Your task to perform on an android device: toggle priority inbox in the gmail app Image 0: 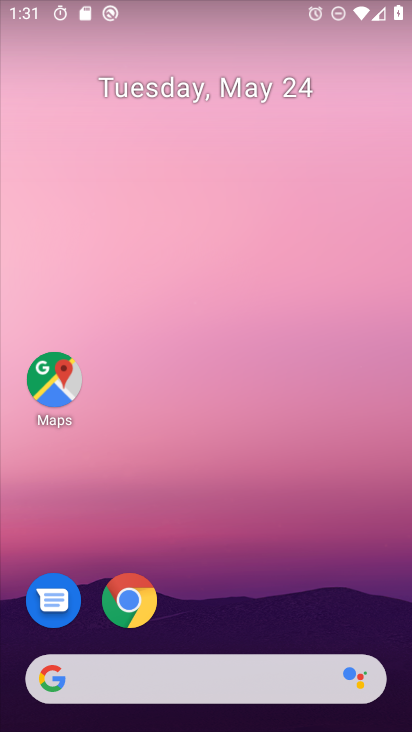
Step 0: drag from (254, 535) to (243, 178)
Your task to perform on an android device: toggle priority inbox in the gmail app Image 1: 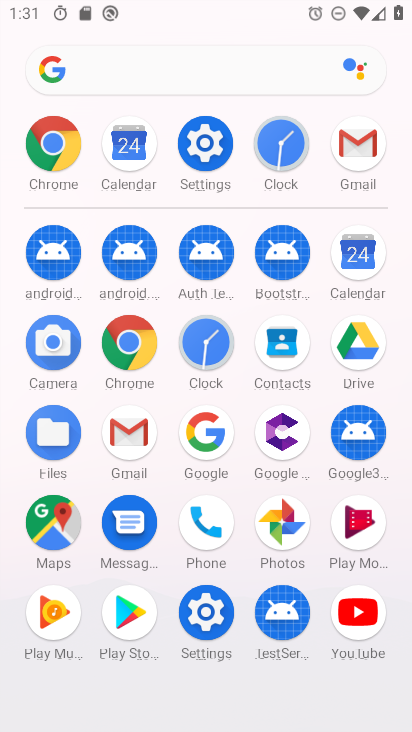
Step 1: click (135, 436)
Your task to perform on an android device: toggle priority inbox in the gmail app Image 2: 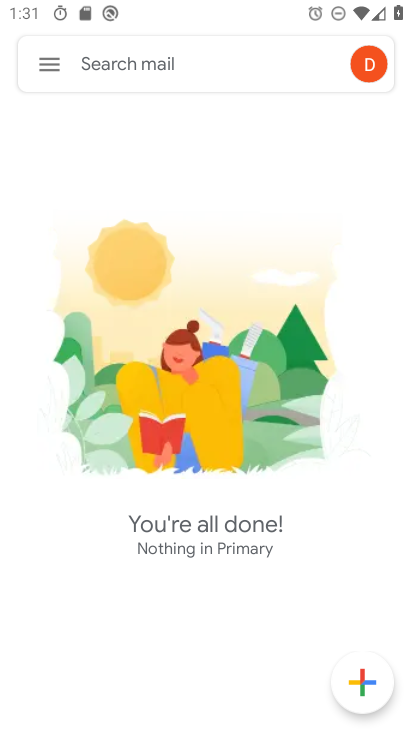
Step 2: click (60, 72)
Your task to perform on an android device: toggle priority inbox in the gmail app Image 3: 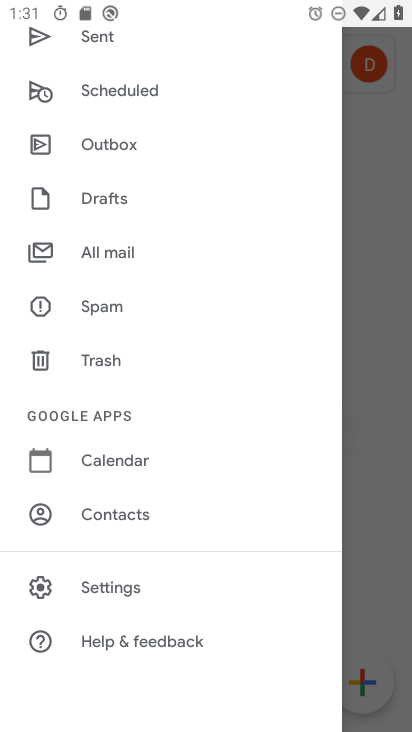
Step 3: click (110, 588)
Your task to perform on an android device: toggle priority inbox in the gmail app Image 4: 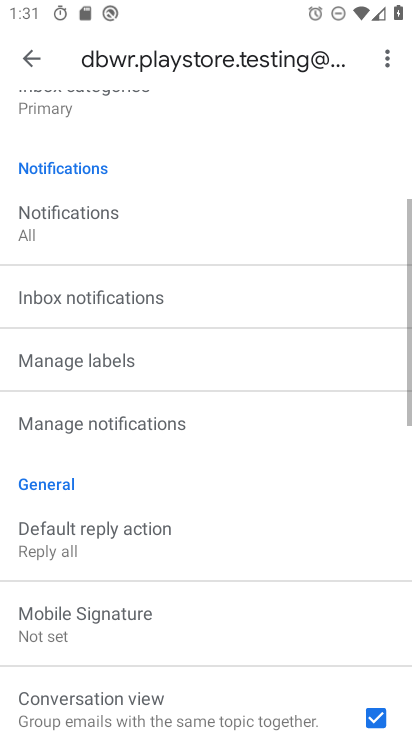
Step 4: drag from (114, 228) to (75, 693)
Your task to perform on an android device: toggle priority inbox in the gmail app Image 5: 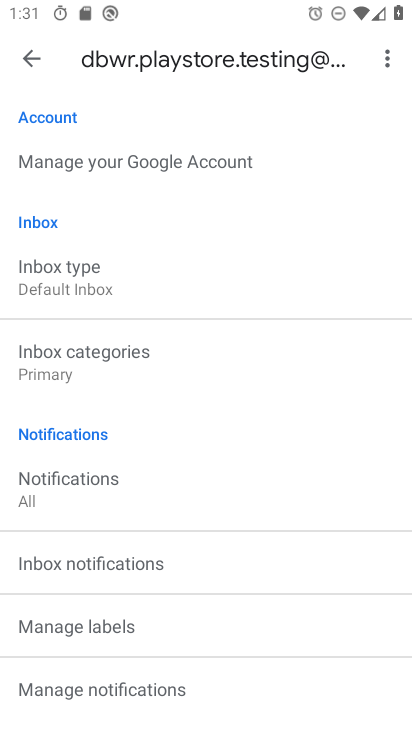
Step 5: click (57, 271)
Your task to perform on an android device: toggle priority inbox in the gmail app Image 6: 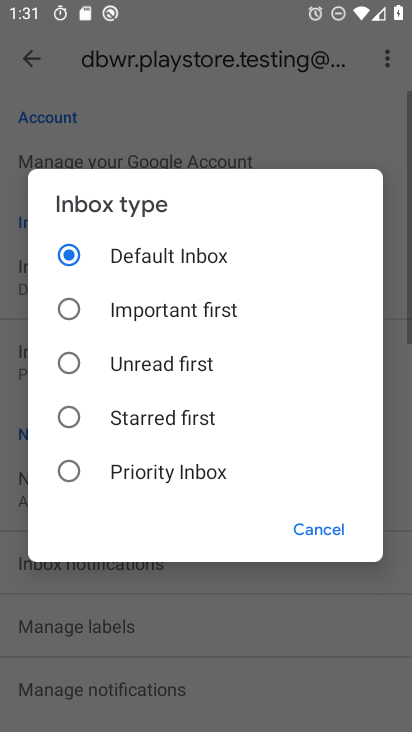
Step 6: click (124, 479)
Your task to perform on an android device: toggle priority inbox in the gmail app Image 7: 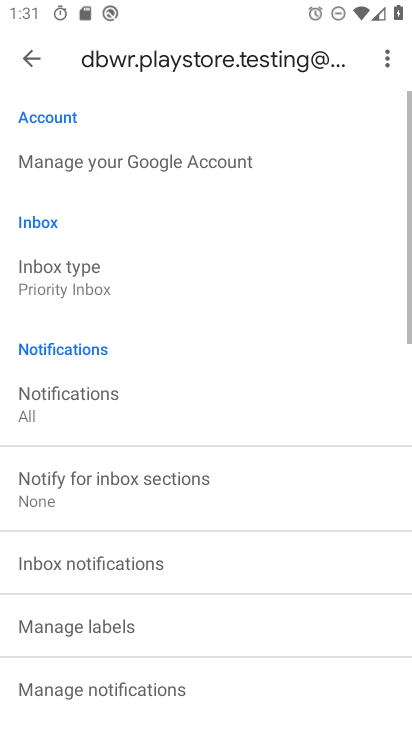
Step 7: task complete